Your task to perform on an android device: refresh tabs in the chrome app Image 0: 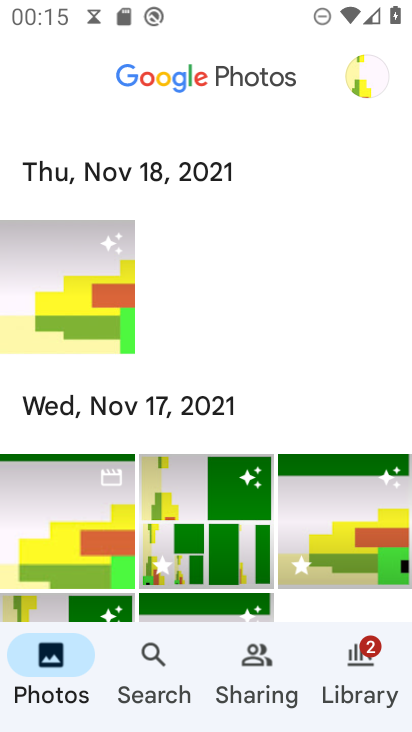
Step 0: press home button
Your task to perform on an android device: refresh tabs in the chrome app Image 1: 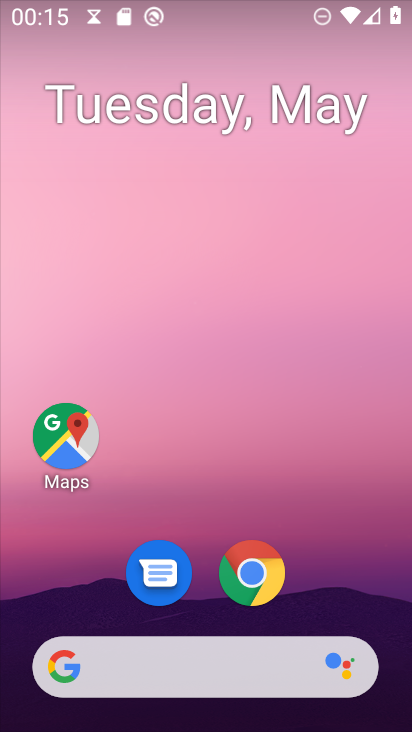
Step 1: click (246, 559)
Your task to perform on an android device: refresh tabs in the chrome app Image 2: 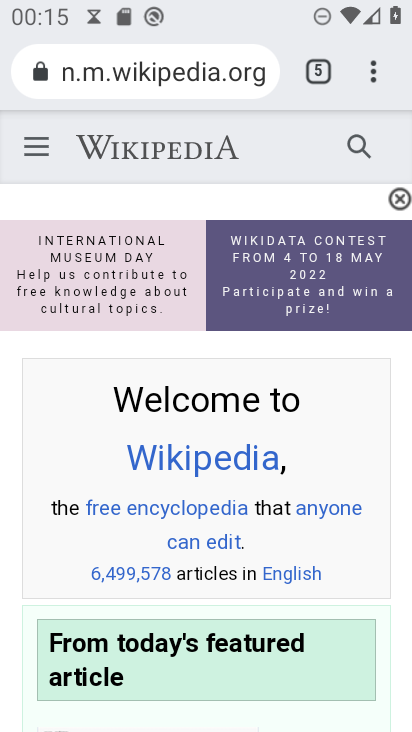
Step 2: click (374, 76)
Your task to perform on an android device: refresh tabs in the chrome app Image 3: 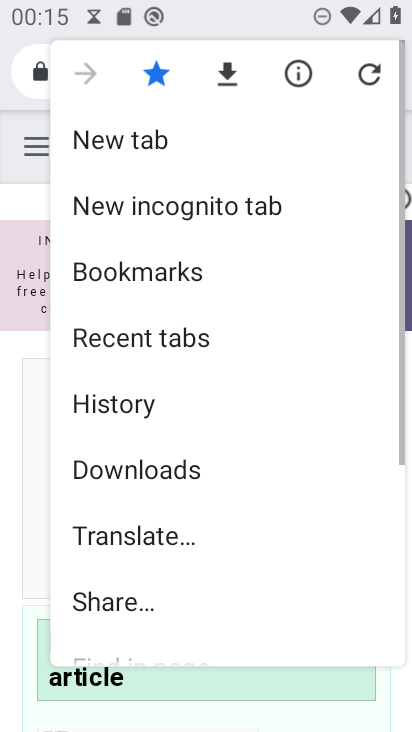
Step 3: click (374, 76)
Your task to perform on an android device: refresh tabs in the chrome app Image 4: 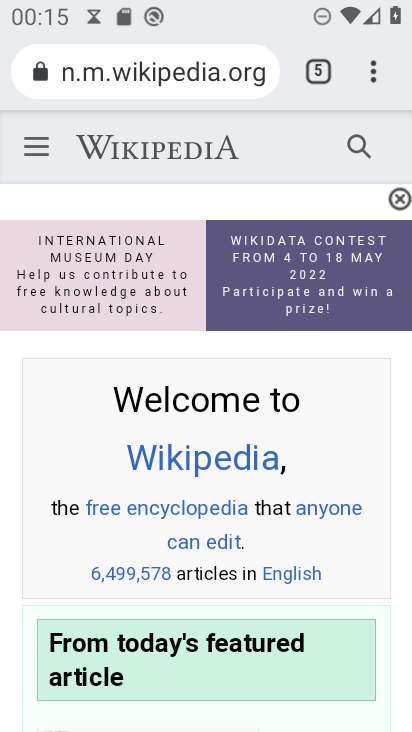
Step 4: task complete